Your task to perform on an android device: turn on notifications settings in the gmail app Image 0: 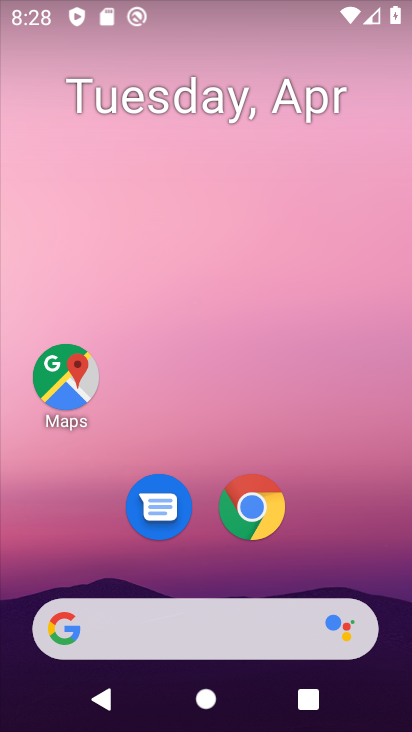
Step 0: drag from (215, 582) to (221, 153)
Your task to perform on an android device: turn on notifications settings in the gmail app Image 1: 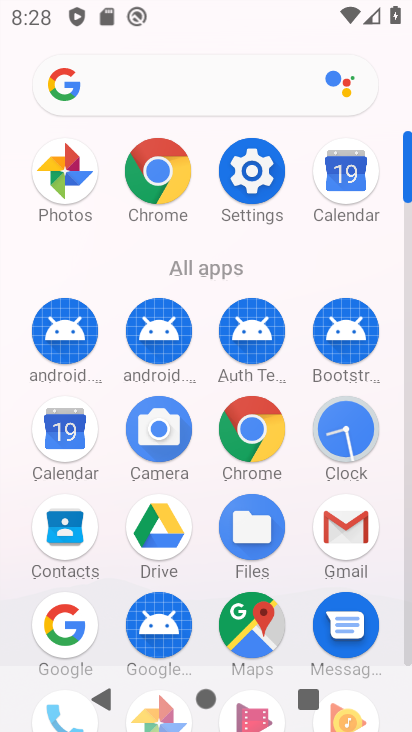
Step 1: click (337, 520)
Your task to perform on an android device: turn on notifications settings in the gmail app Image 2: 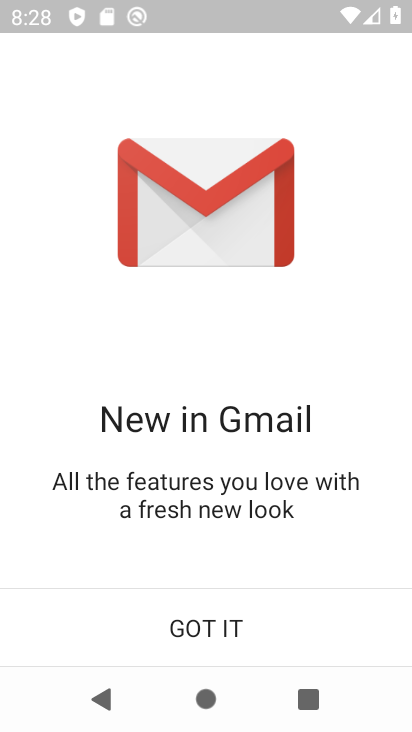
Step 2: click (206, 629)
Your task to perform on an android device: turn on notifications settings in the gmail app Image 3: 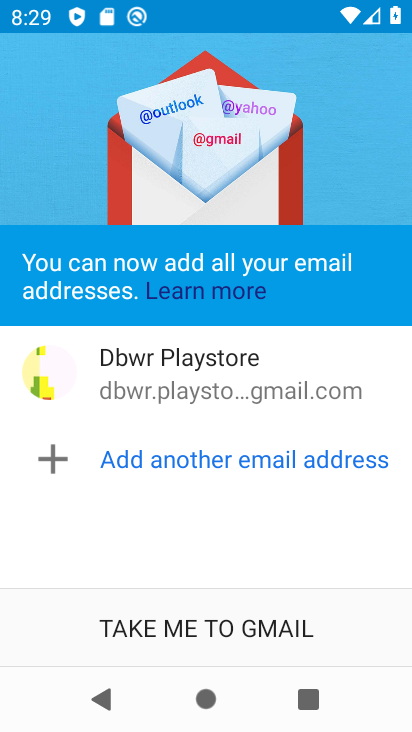
Step 3: click (145, 639)
Your task to perform on an android device: turn on notifications settings in the gmail app Image 4: 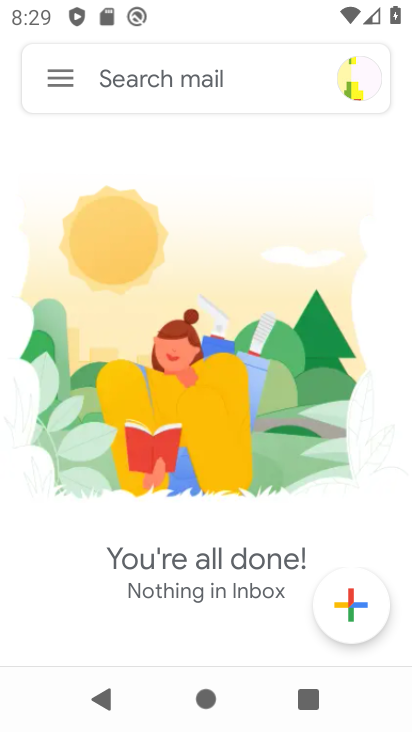
Step 4: press home button
Your task to perform on an android device: turn on notifications settings in the gmail app Image 5: 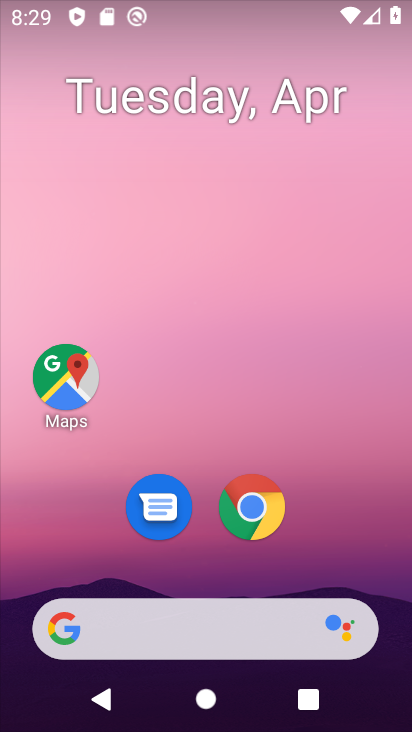
Step 5: click (242, 503)
Your task to perform on an android device: turn on notifications settings in the gmail app Image 6: 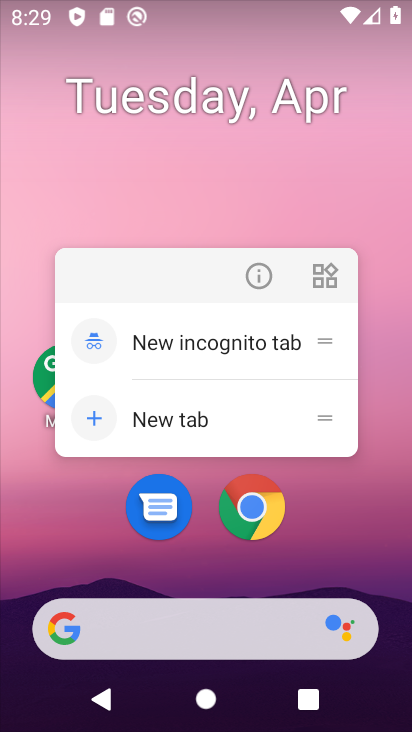
Step 6: click (292, 201)
Your task to perform on an android device: turn on notifications settings in the gmail app Image 7: 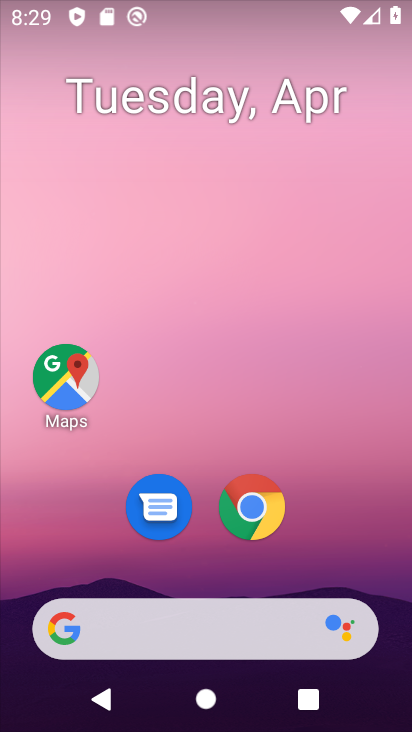
Step 7: drag from (215, 583) to (218, 211)
Your task to perform on an android device: turn on notifications settings in the gmail app Image 8: 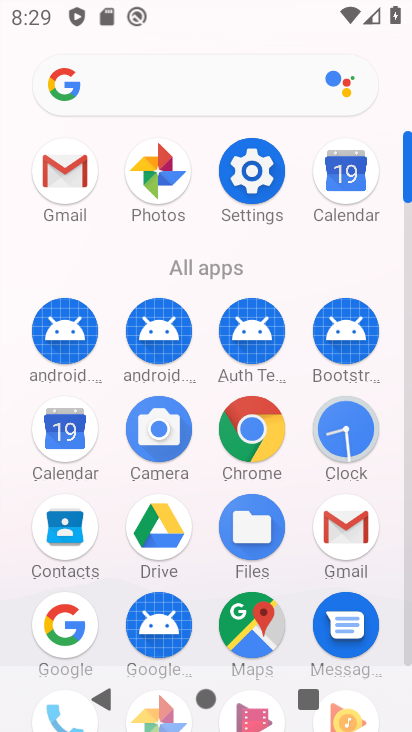
Step 8: click (331, 518)
Your task to perform on an android device: turn on notifications settings in the gmail app Image 9: 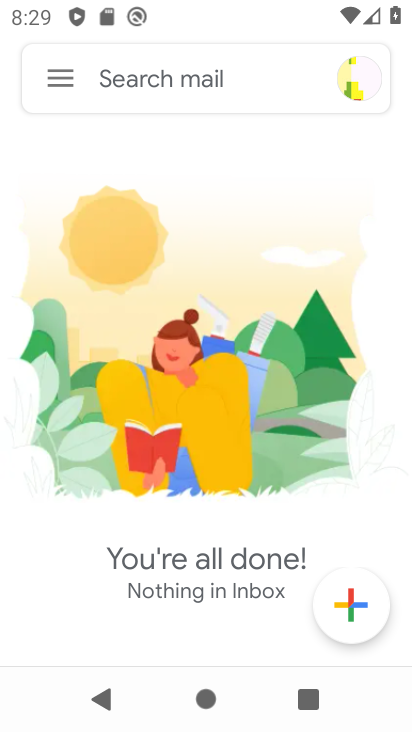
Step 9: click (57, 78)
Your task to perform on an android device: turn on notifications settings in the gmail app Image 10: 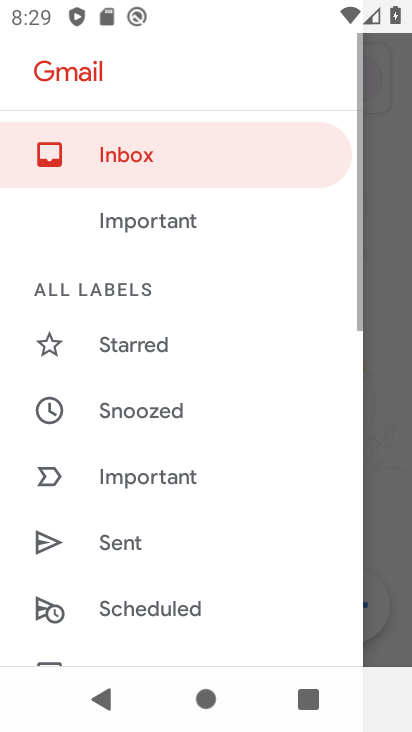
Step 10: drag from (195, 590) to (212, 255)
Your task to perform on an android device: turn on notifications settings in the gmail app Image 11: 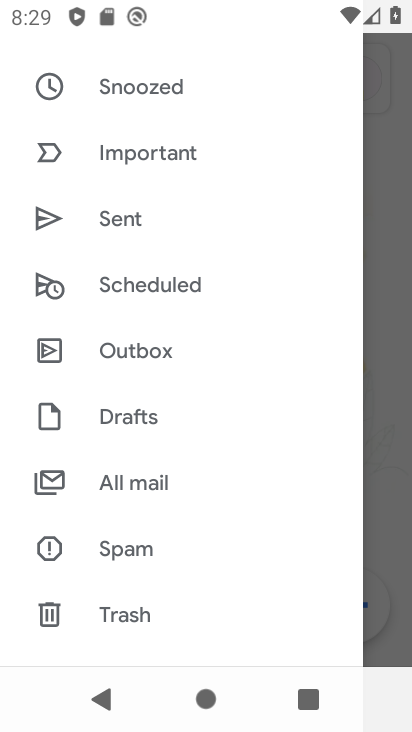
Step 11: drag from (184, 568) to (198, 234)
Your task to perform on an android device: turn on notifications settings in the gmail app Image 12: 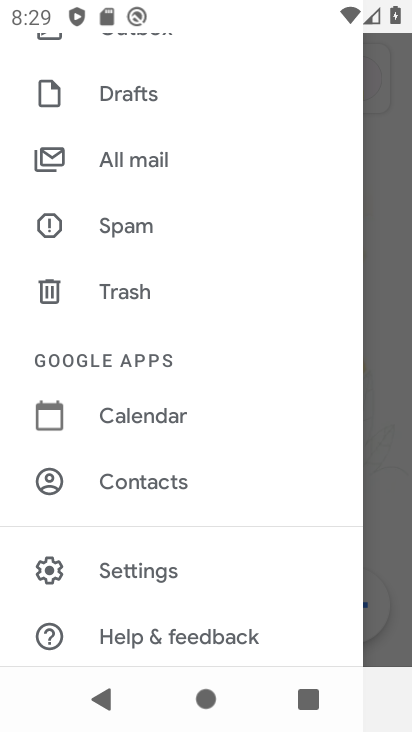
Step 12: click (185, 552)
Your task to perform on an android device: turn on notifications settings in the gmail app Image 13: 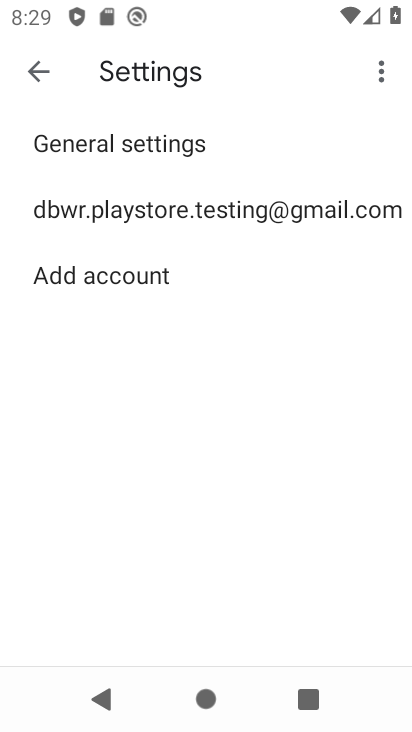
Step 13: click (229, 205)
Your task to perform on an android device: turn on notifications settings in the gmail app Image 14: 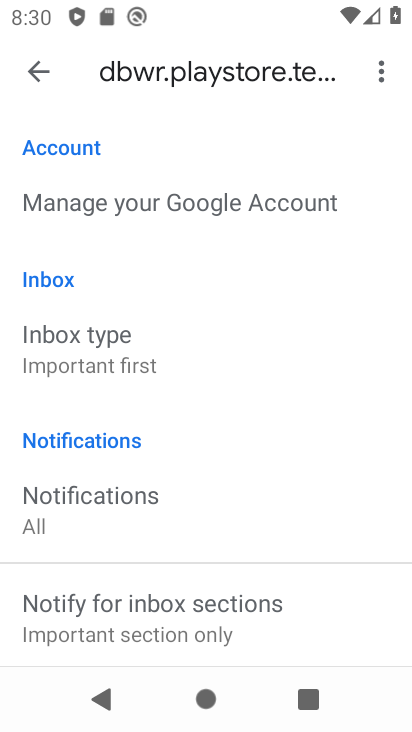
Step 14: drag from (167, 621) to (167, 320)
Your task to perform on an android device: turn on notifications settings in the gmail app Image 15: 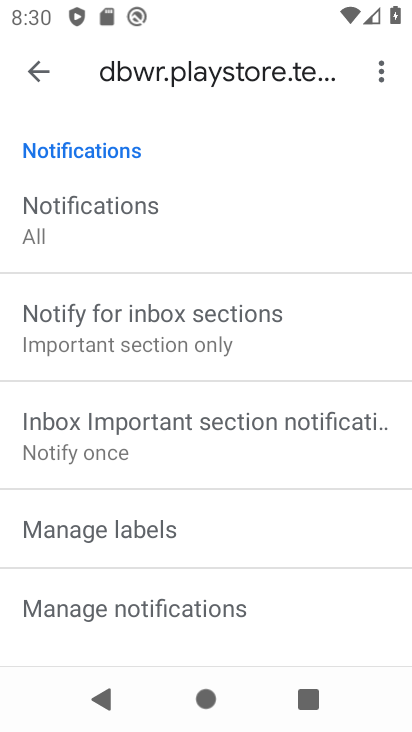
Step 15: click (147, 597)
Your task to perform on an android device: turn on notifications settings in the gmail app Image 16: 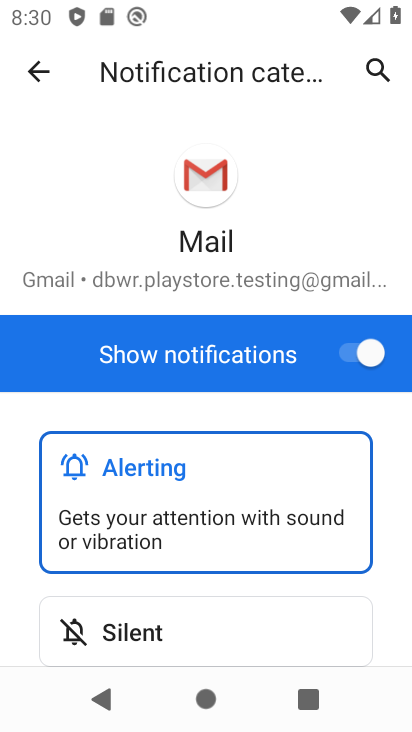
Step 16: task complete